Your task to perform on an android device: set default search engine in the chrome app Image 0: 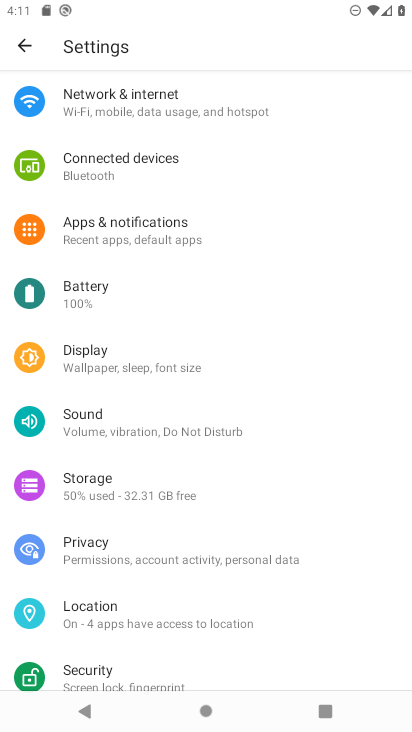
Step 0: press home button
Your task to perform on an android device: set default search engine in the chrome app Image 1: 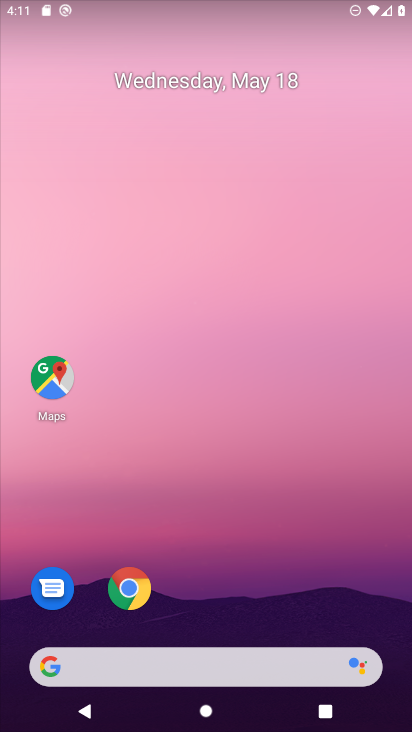
Step 1: click (138, 580)
Your task to perform on an android device: set default search engine in the chrome app Image 2: 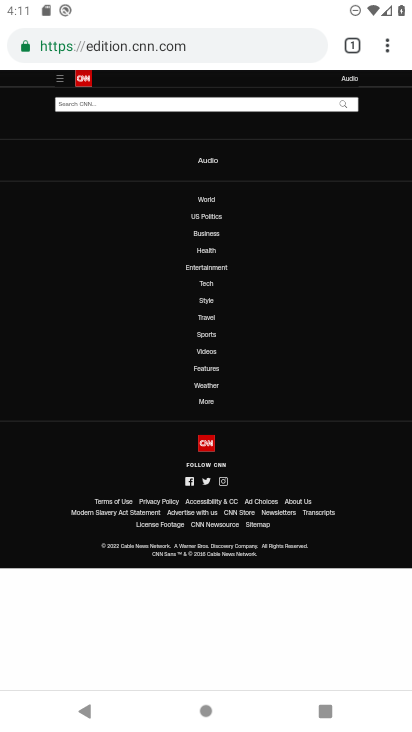
Step 2: click (389, 63)
Your task to perform on an android device: set default search engine in the chrome app Image 3: 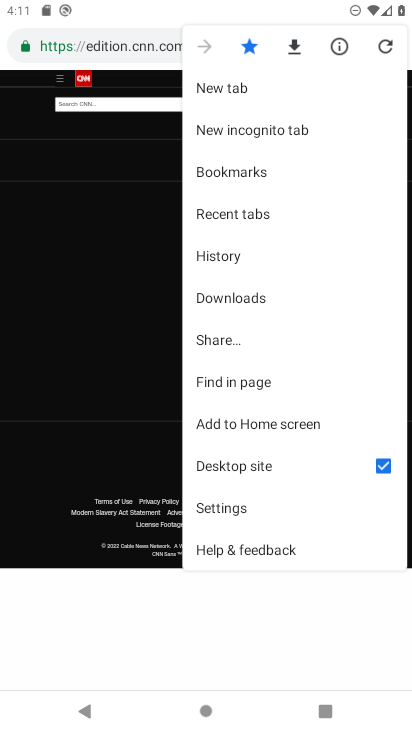
Step 3: click (274, 513)
Your task to perform on an android device: set default search engine in the chrome app Image 4: 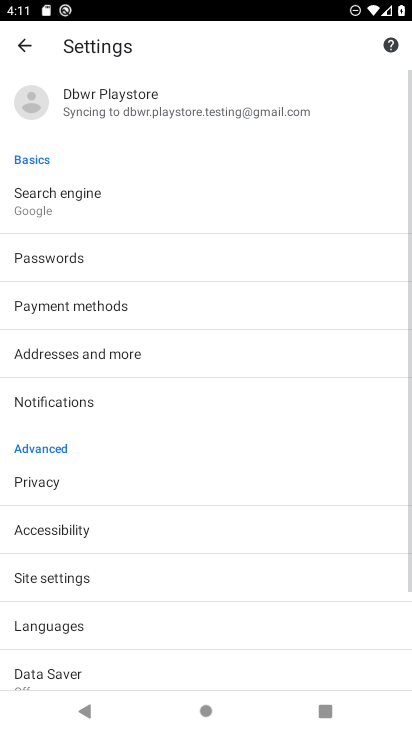
Step 4: click (180, 179)
Your task to perform on an android device: set default search engine in the chrome app Image 5: 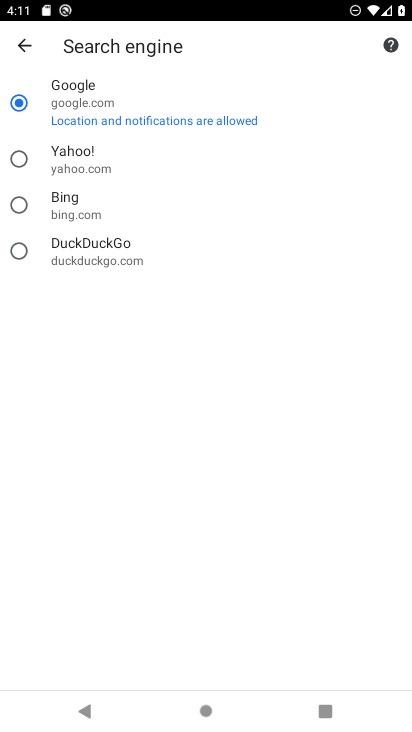
Step 5: click (132, 262)
Your task to perform on an android device: set default search engine in the chrome app Image 6: 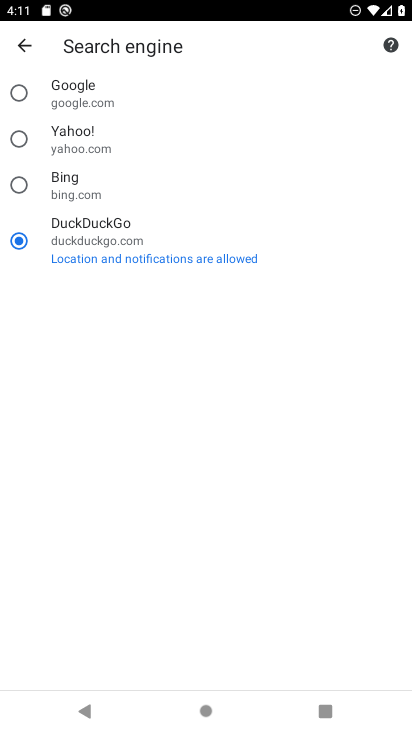
Step 6: task complete